Your task to perform on an android device: Clear the shopping cart on newegg.com. Add "macbook pro" to the cart on newegg.com, then select checkout. Image 0: 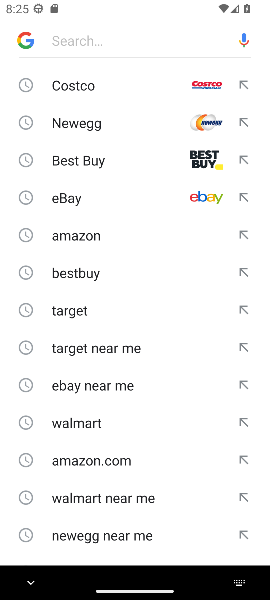
Step 0: click (79, 44)
Your task to perform on an android device: Clear the shopping cart on newegg.com. Add "macbook pro" to the cart on newegg.com, then select checkout. Image 1: 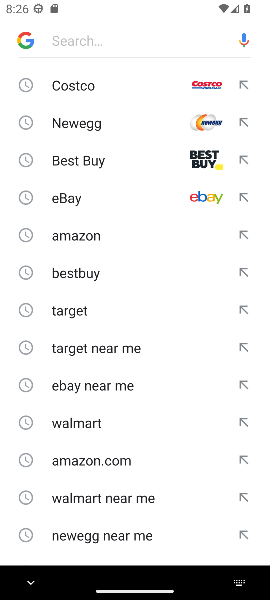
Step 1: type "newegg.com"
Your task to perform on an android device: Clear the shopping cart on newegg.com. Add "macbook pro" to the cart on newegg.com, then select checkout. Image 2: 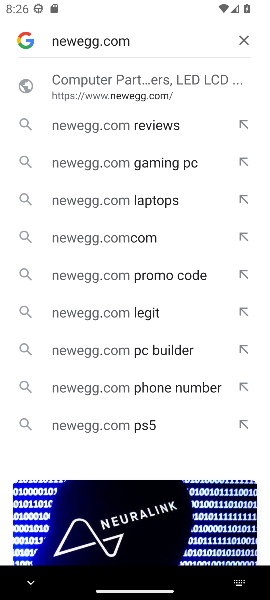
Step 2: click (95, 95)
Your task to perform on an android device: Clear the shopping cart on newegg.com. Add "macbook pro" to the cart on newegg.com, then select checkout. Image 3: 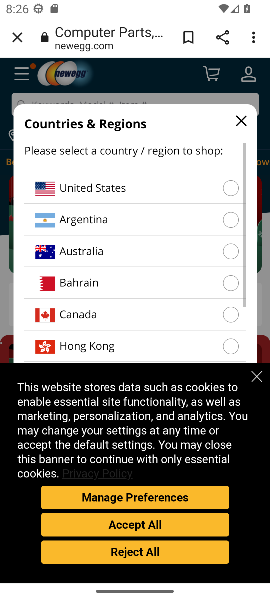
Step 3: click (258, 382)
Your task to perform on an android device: Clear the shopping cart on newegg.com. Add "macbook pro" to the cart on newegg.com, then select checkout. Image 4: 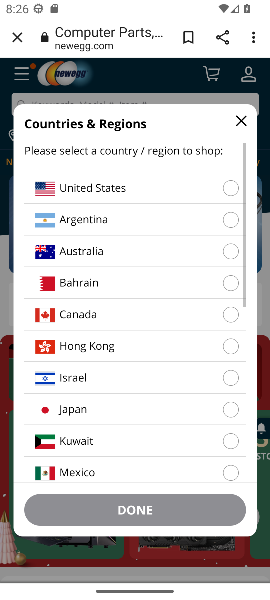
Step 4: click (52, 189)
Your task to perform on an android device: Clear the shopping cart on newegg.com. Add "macbook pro" to the cart on newegg.com, then select checkout. Image 5: 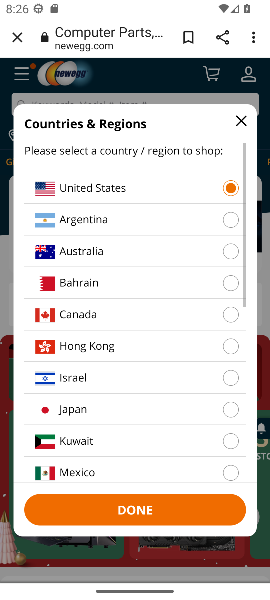
Step 5: click (100, 502)
Your task to perform on an android device: Clear the shopping cart on newegg.com. Add "macbook pro" to the cart on newegg.com, then select checkout. Image 6: 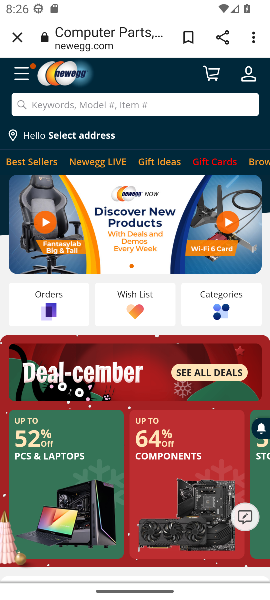
Step 6: click (214, 75)
Your task to perform on an android device: Clear the shopping cart on newegg.com. Add "macbook pro" to the cart on newegg.com, then select checkout. Image 7: 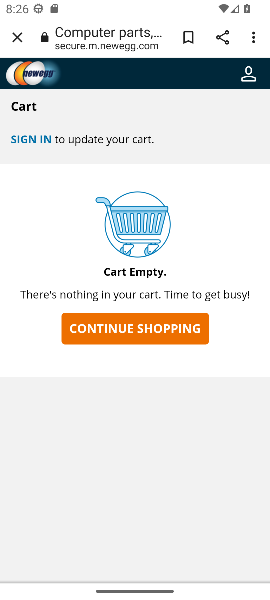
Step 7: click (122, 324)
Your task to perform on an android device: Clear the shopping cart on newegg.com. Add "macbook pro" to the cart on newegg.com, then select checkout. Image 8: 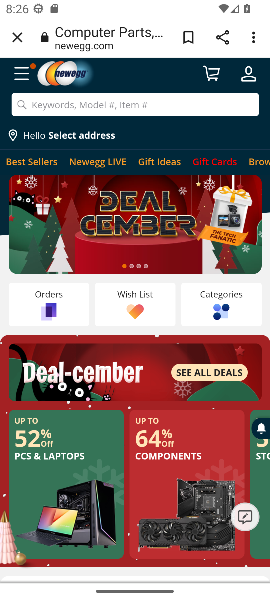
Step 8: click (77, 108)
Your task to perform on an android device: Clear the shopping cart on newegg.com. Add "macbook pro" to the cart on newegg.com, then select checkout. Image 9: 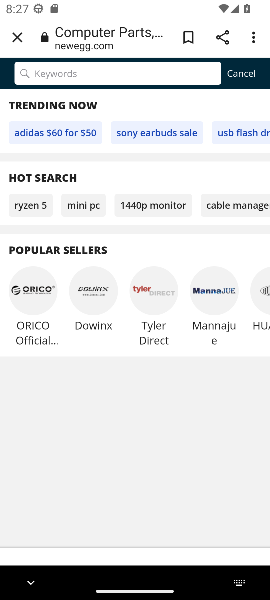
Step 9: type "macbook pro"
Your task to perform on an android device: Clear the shopping cart on newegg.com. Add "macbook pro" to the cart on newegg.com, then select checkout. Image 10: 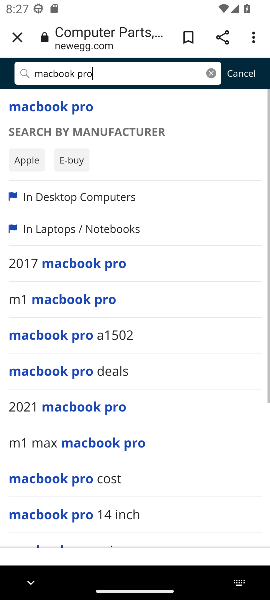
Step 10: click (50, 107)
Your task to perform on an android device: Clear the shopping cart on newegg.com. Add "macbook pro" to the cart on newegg.com, then select checkout. Image 11: 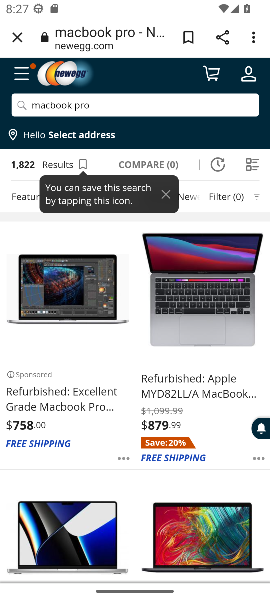
Step 11: click (42, 396)
Your task to perform on an android device: Clear the shopping cart on newegg.com. Add "macbook pro" to the cart on newegg.com, then select checkout. Image 12: 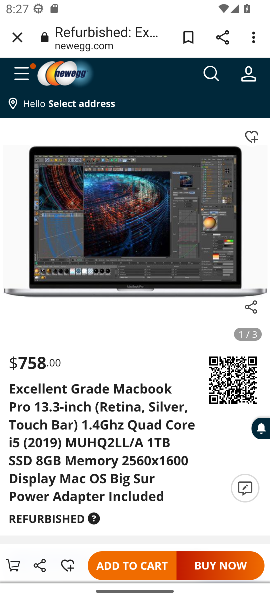
Step 12: click (110, 559)
Your task to perform on an android device: Clear the shopping cart on newegg.com. Add "macbook pro" to the cart on newegg.com, then select checkout. Image 13: 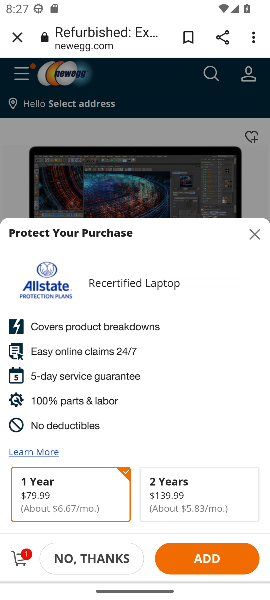
Step 13: click (19, 565)
Your task to perform on an android device: Clear the shopping cart on newegg.com. Add "macbook pro" to the cart on newegg.com, then select checkout. Image 14: 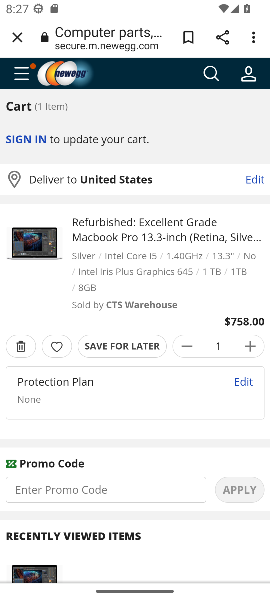
Step 14: drag from (131, 547) to (157, 294)
Your task to perform on an android device: Clear the shopping cart on newegg.com. Add "macbook pro" to the cart on newegg.com, then select checkout. Image 15: 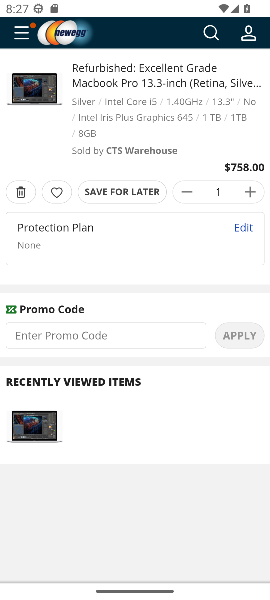
Step 15: click (107, 521)
Your task to perform on an android device: Clear the shopping cart on newegg.com. Add "macbook pro" to the cart on newegg.com, then select checkout. Image 16: 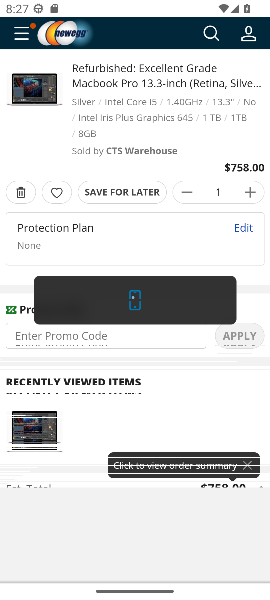
Step 16: click (107, 521)
Your task to perform on an android device: Clear the shopping cart on newegg.com. Add "macbook pro" to the cart on newegg.com, then select checkout. Image 17: 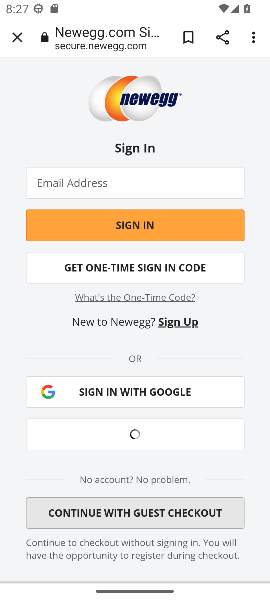
Step 17: click (107, 521)
Your task to perform on an android device: Clear the shopping cart on newegg.com. Add "macbook pro" to the cart on newegg.com, then select checkout. Image 18: 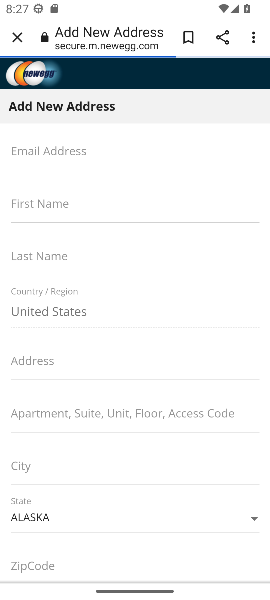
Step 18: task complete